Your task to perform on an android device: open app "Gmail" (install if not already installed) Image 0: 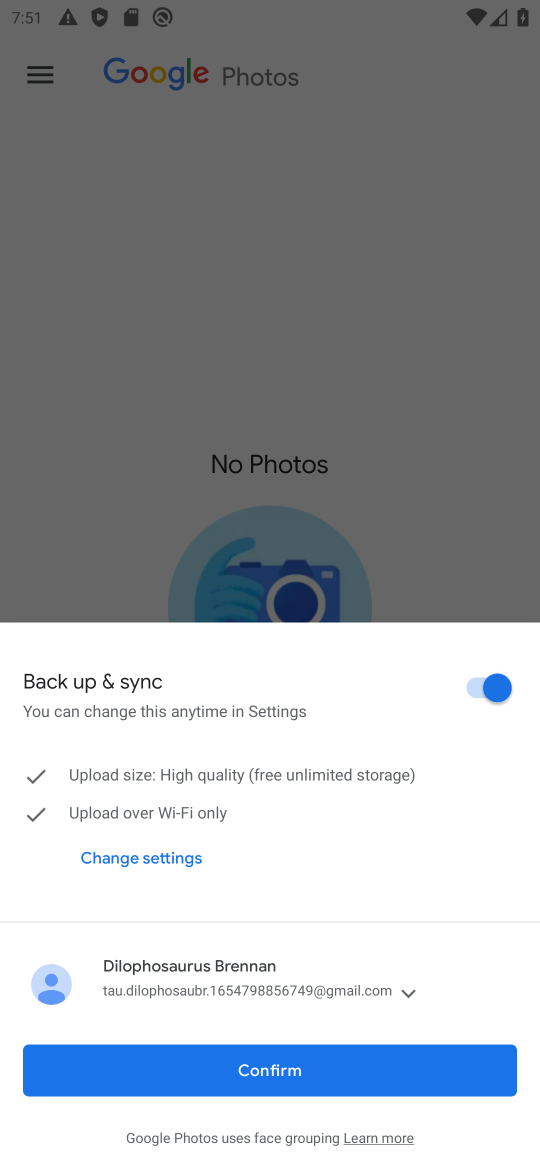
Step 0: press home button
Your task to perform on an android device: open app "Gmail" (install if not already installed) Image 1: 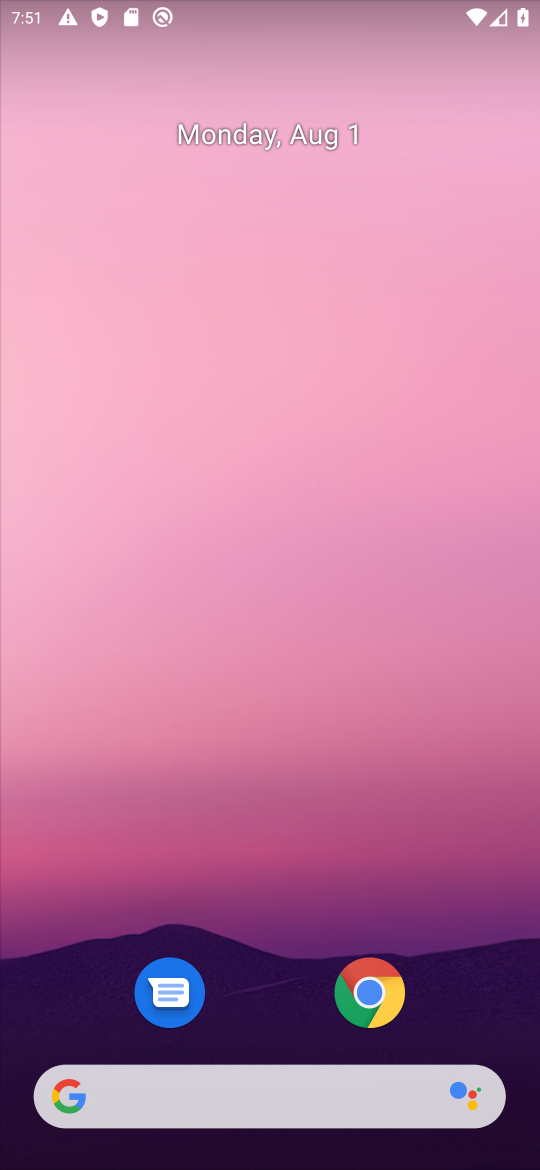
Step 1: drag from (439, 994) to (371, 131)
Your task to perform on an android device: open app "Gmail" (install if not already installed) Image 2: 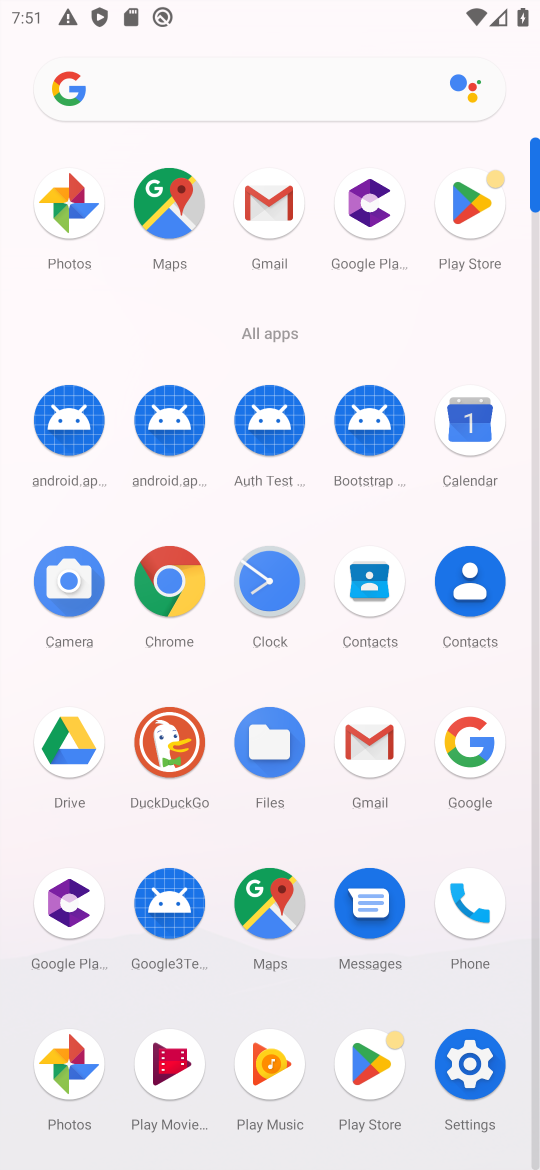
Step 2: click (286, 217)
Your task to perform on an android device: open app "Gmail" (install if not already installed) Image 3: 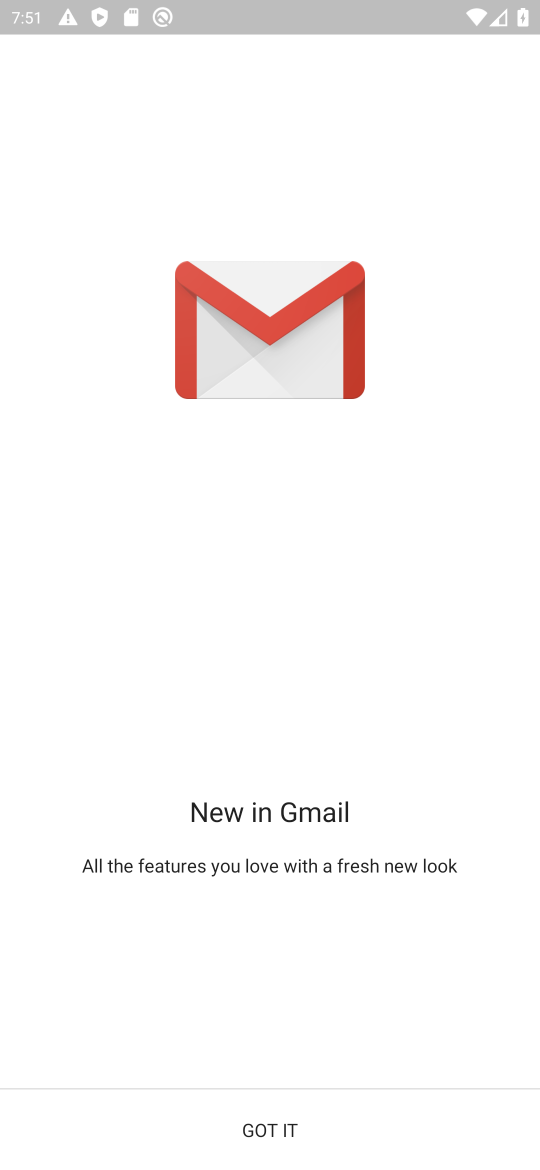
Step 3: task complete